Your task to perform on an android device: What's the weather going to be this weekend? Image 0: 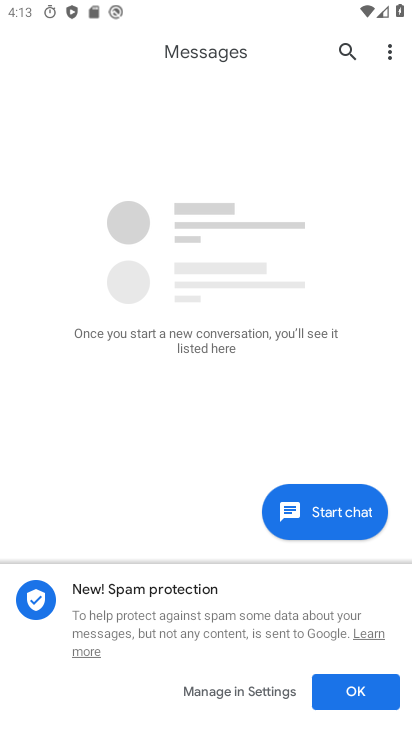
Step 0: press home button
Your task to perform on an android device: What's the weather going to be this weekend? Image 1: 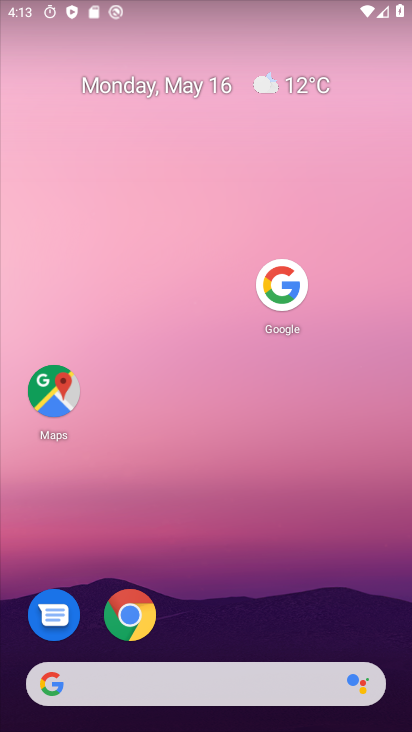
Step 1: click (208, 691)
Your task to perform on an android device: What's the weather going to be this weekend? Image 2: 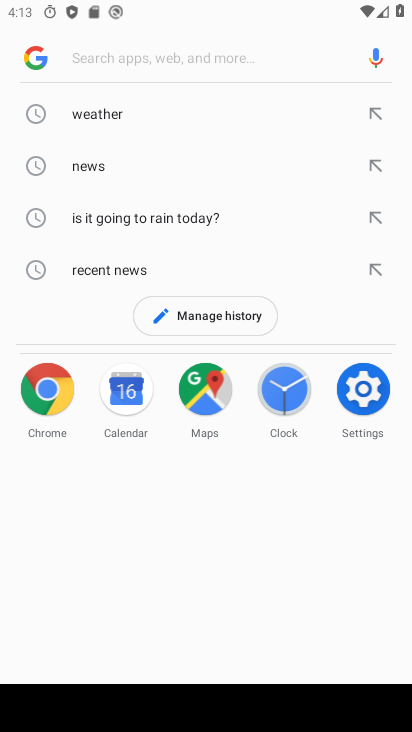
Step 2: click (113, 105)
Your task to perform on an android device: What's the weather going to be this weekend? Image 3: 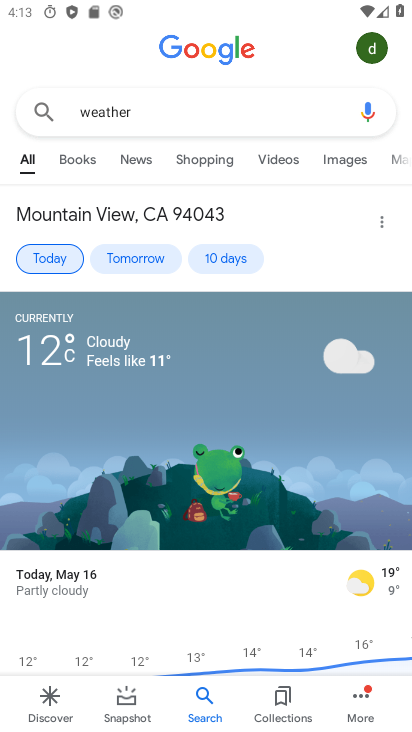
Step 3: click (222, 265)
Your task to perform on an android device: What's the weather going to be this weekend? Image 4: 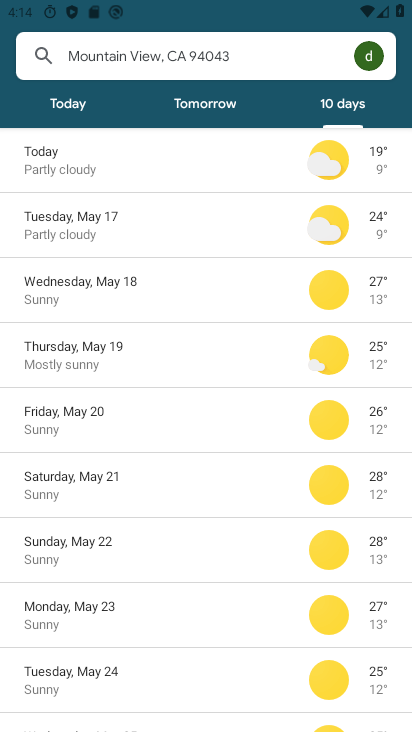
Step 4: task complete